Your task to perform on an android device: add a label to a message in the gmail app Image 0: 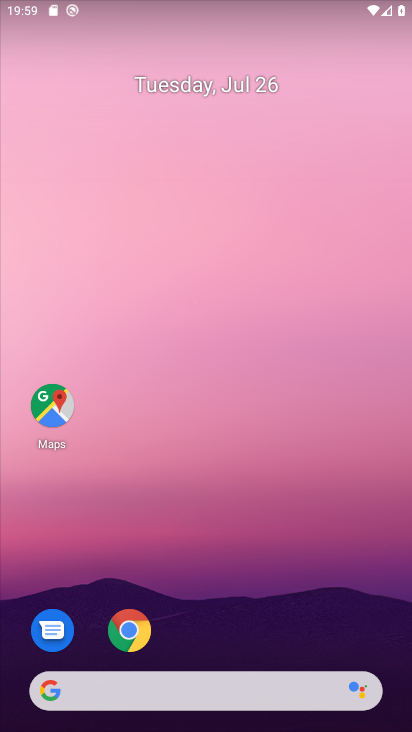
Step 0: drag from (398, 694) to (368, 58)
Your task to perform on an android device: add a label to a message in the gmail app Image 1: 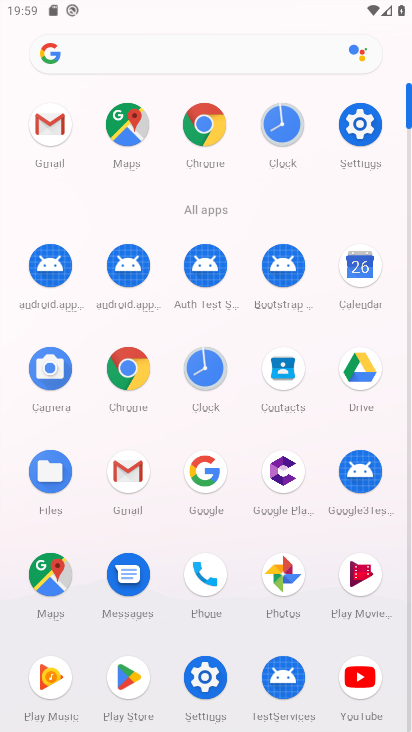
Step 1: click (122, 473)
Your task to perform on an android device: add a label to a message in the gmail app Image 2: 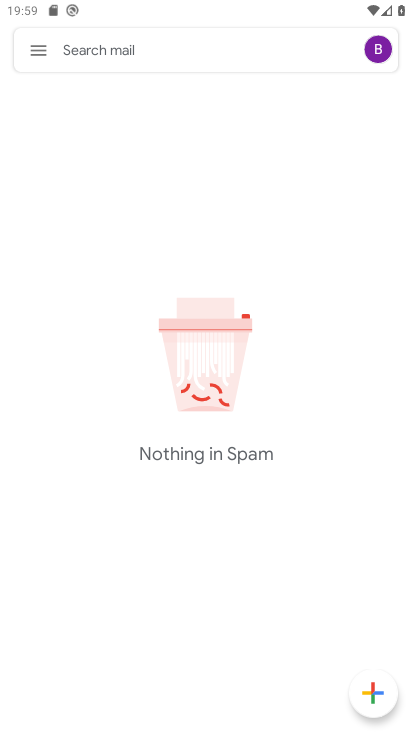
Step 2: click (31, 48)
Your task to perform on an android device: add a label to a message in the gmail app Image 3: 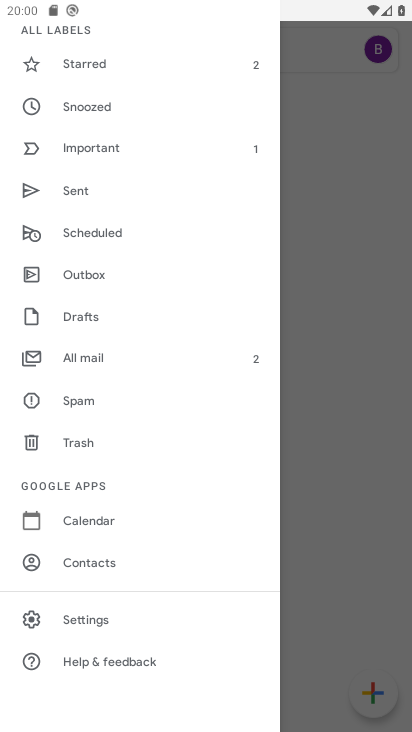
Step 3: click (311, 326)
Your task to perform on an android device: add a label to a message in the gmail app Image 4: 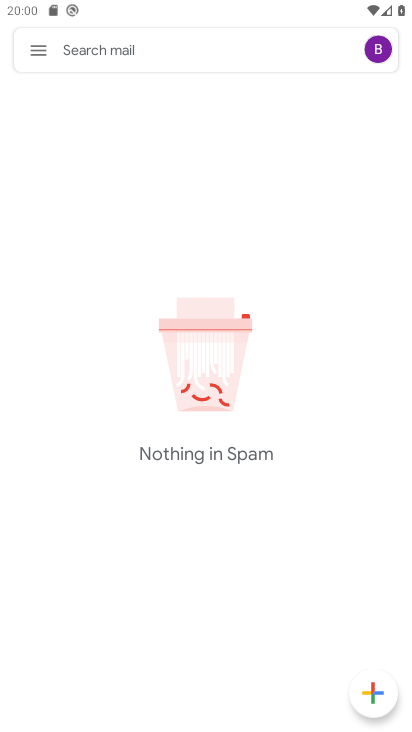
Step 4: task complete